Your task to perform on an android device: change keyboard looks Image 0: 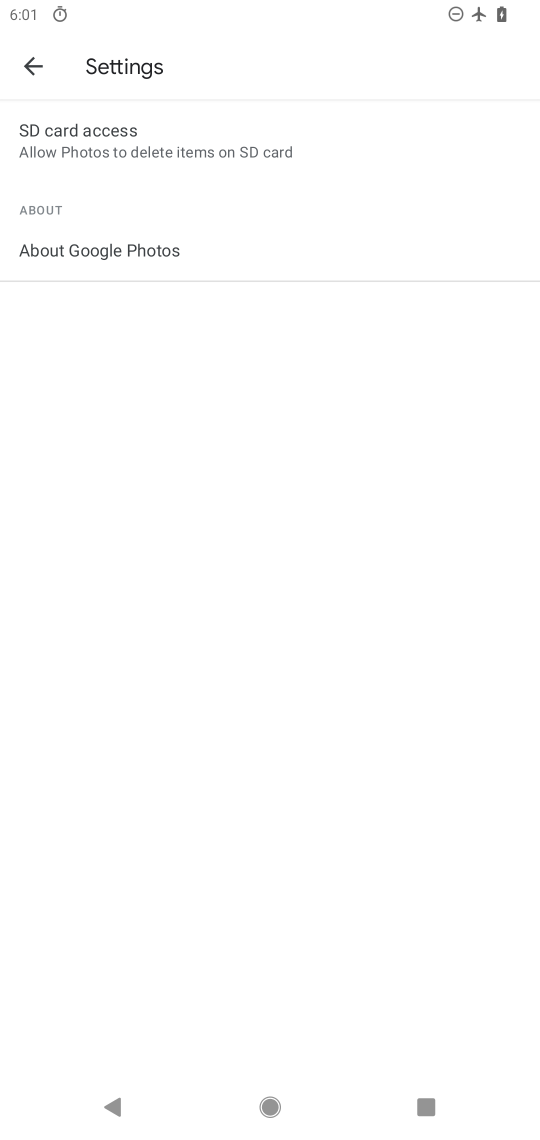
Step 0: press home button
Your task to perform on an android device: change keyboard looks Image 1: 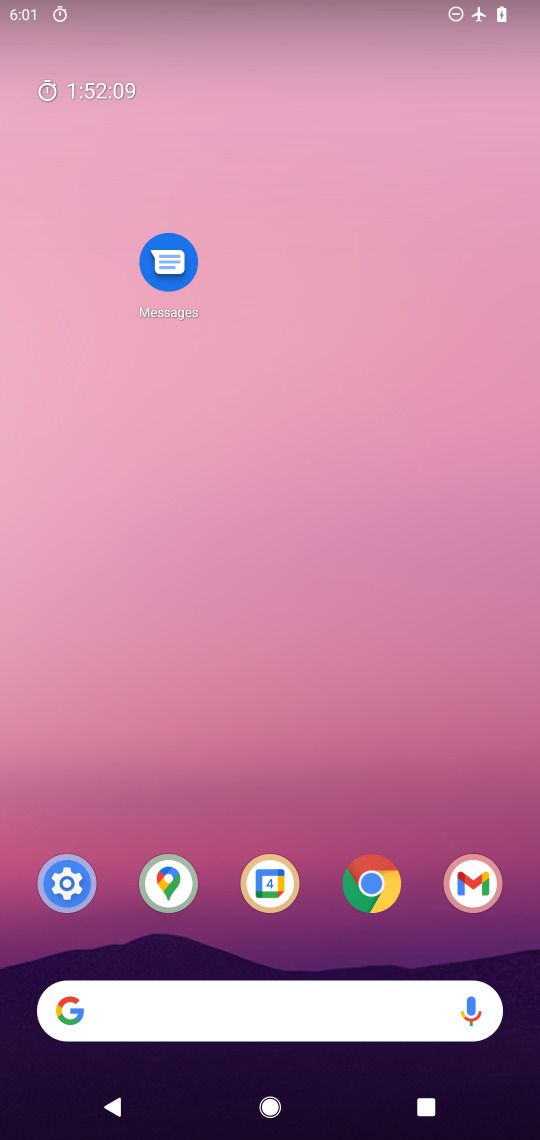
Step 1: drag from (341, 960) to (343, 213)
Your task to perform on an android device: change keyboard looks Image 2: 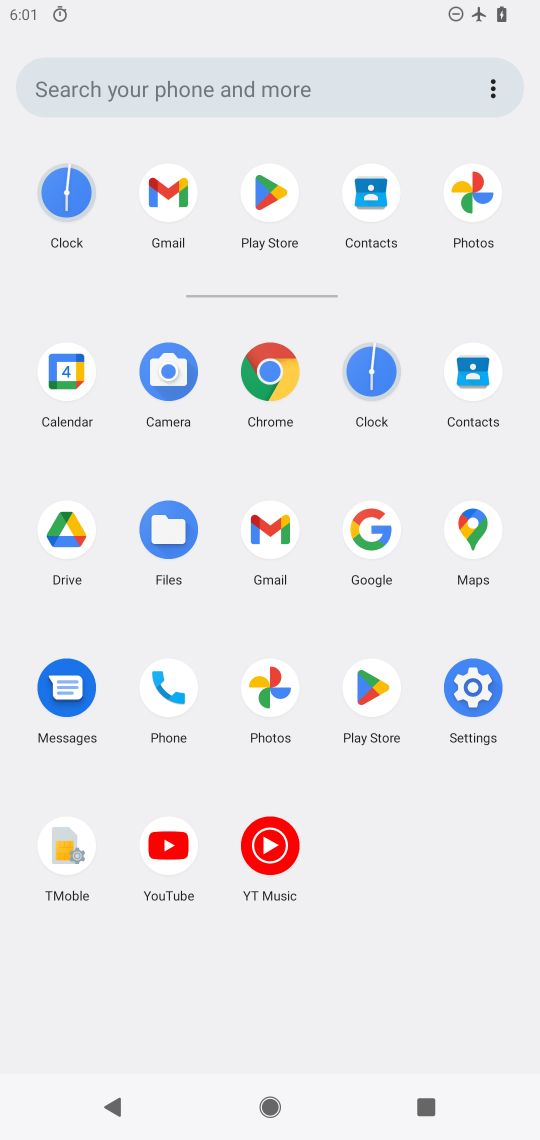
Step 2: click (482, 681)
Your task to perform on an android device: change keyboard looks Image 3: 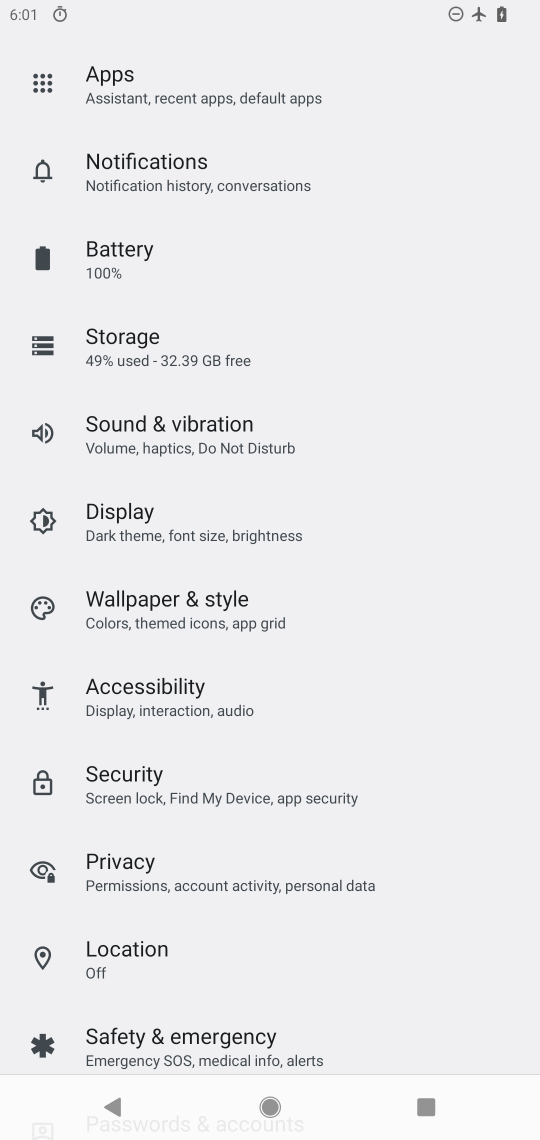
Step 3: drag from (178, 984) to (173, 363)
Your task to perform on an android device: change keyboard looks Image 4: 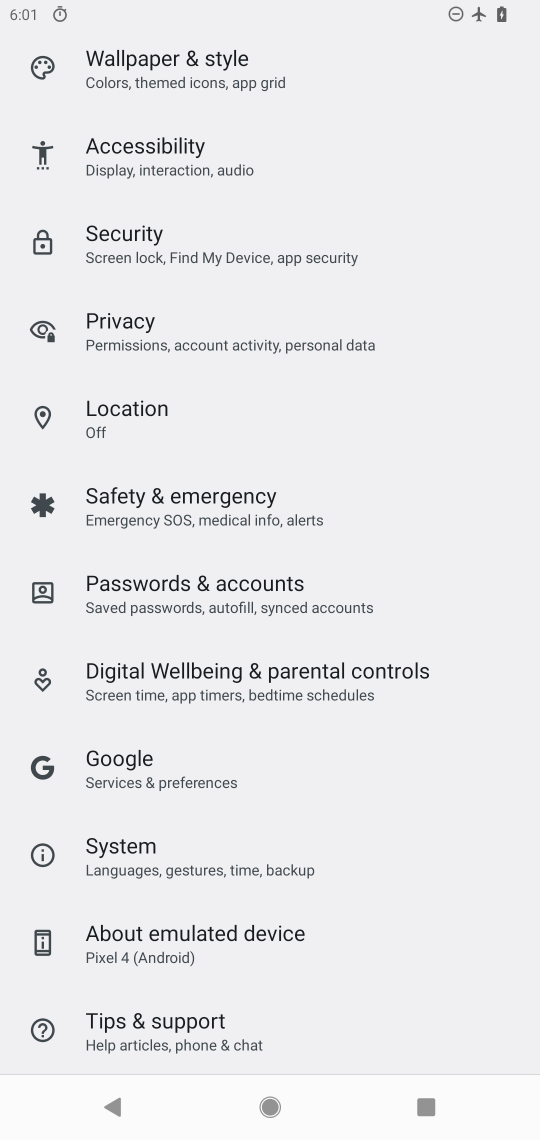
Step 4: drag from (215, 1017) to (213, 384)
Your task to perform on an android device: change keyboard looks Image 5: 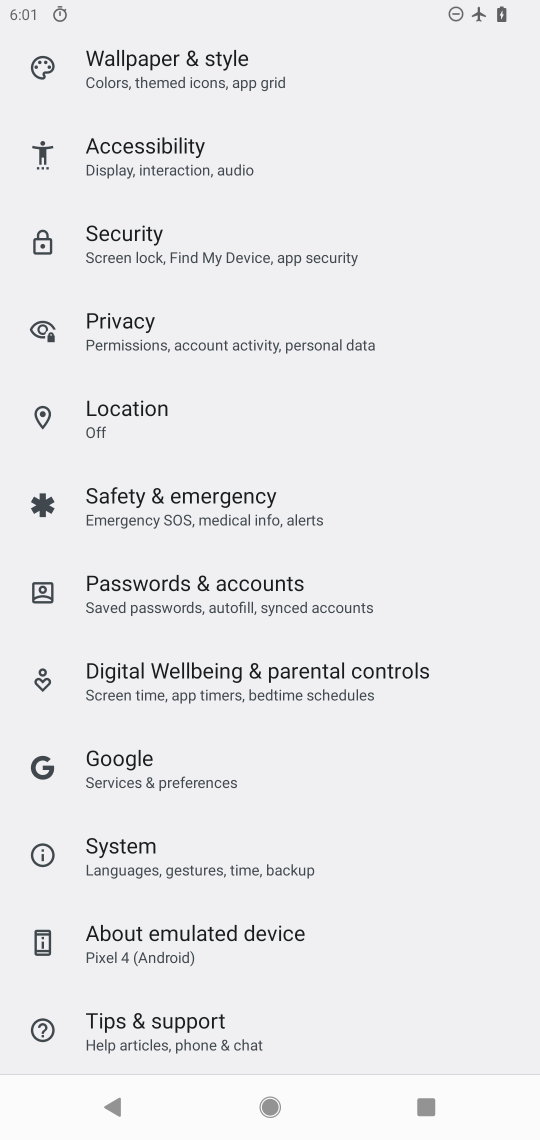
Step 5: click (119, 854)
Your task to perform on an android device: change keyboard looks Image 6: 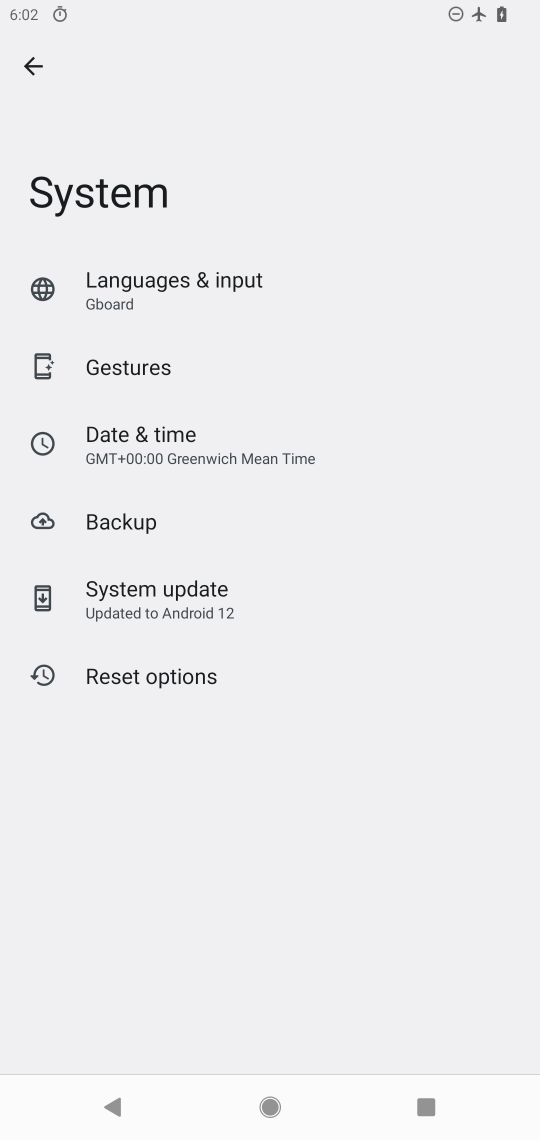
Step 6: click (163, 283)
Your task to perform on an android device: change keyboard looks Image 7: 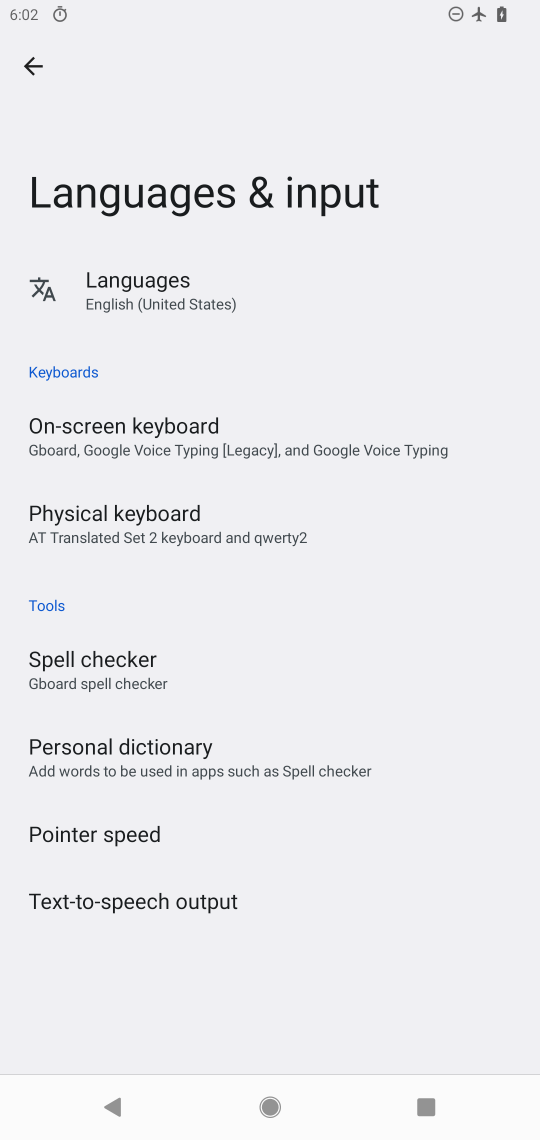
Step 7: click (147, 433)
Your task to perform on an android device: change keyboard looks Image 8: 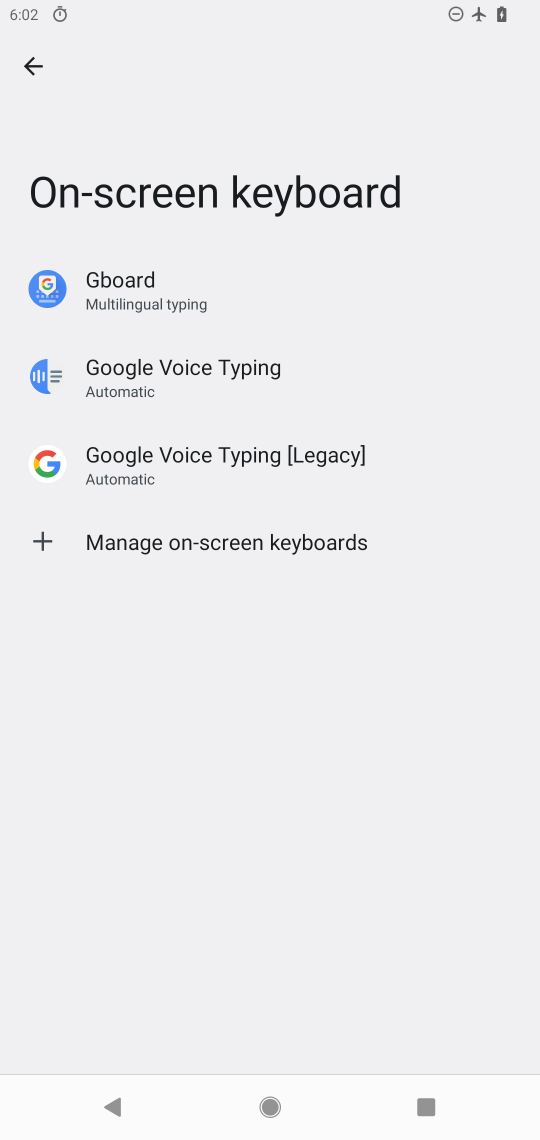
Step 8: click (131, 291)
Your task to perform on an android device: change keyboard looks Image 9: 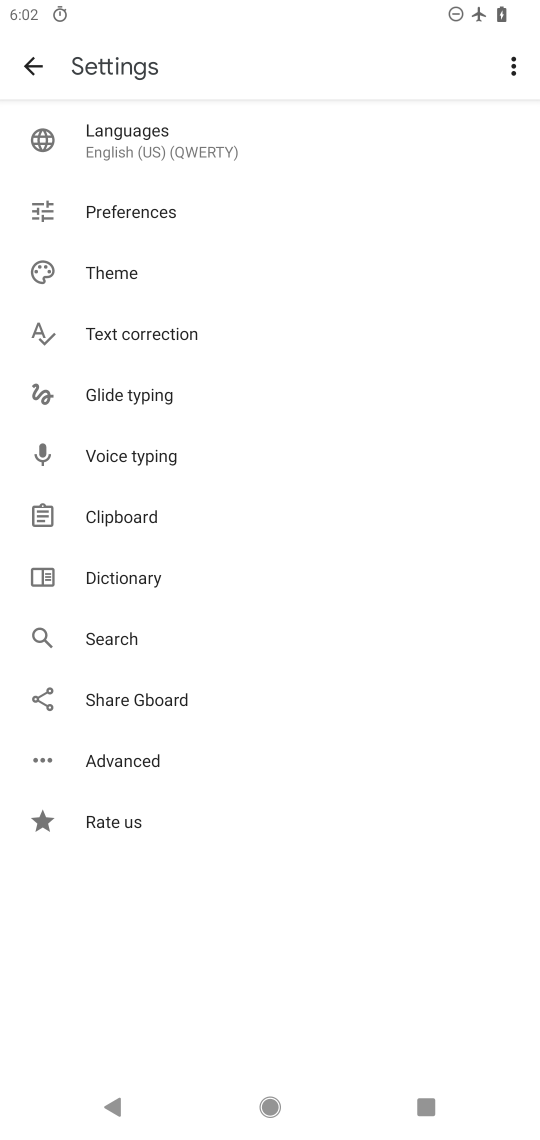
Step 9: click (110, 270)
Your task to perform on an android device: change keyboard looks Image 10: 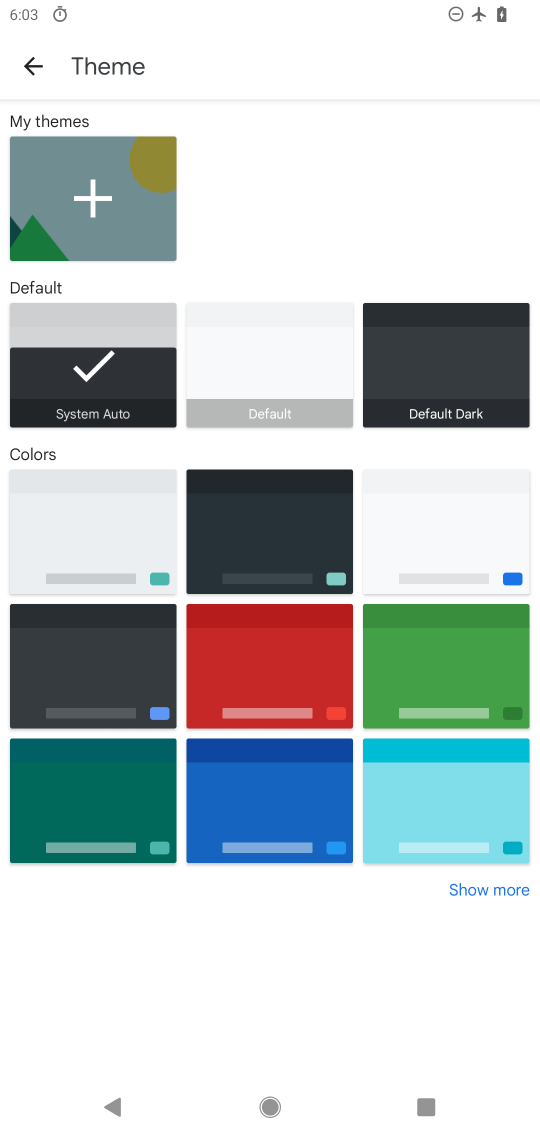
Step 10: click (445, 380)
Your task to perform on an android device: change keyboard looks Image 11: 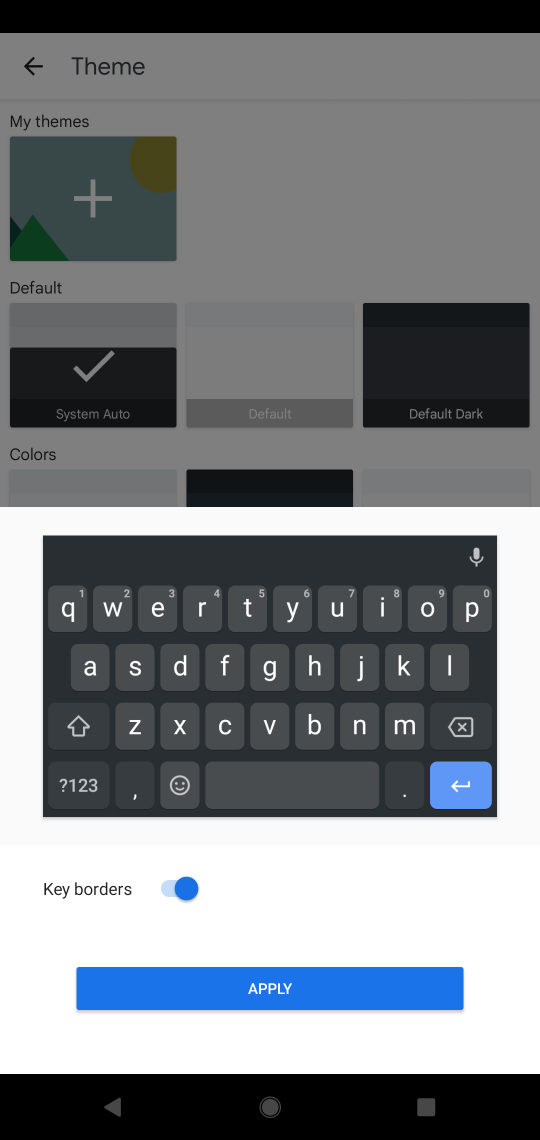
Step 11: click (283, 985)
Your task to perform on an android device: change keyboard looks Image 12: 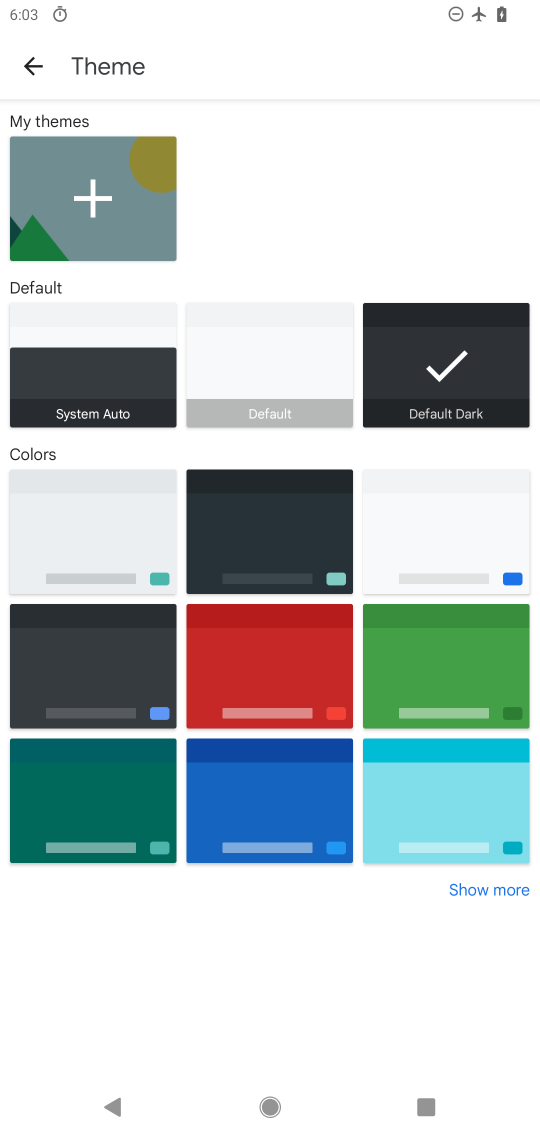
Step 12: task complete